Your task to perform on an android device: Open the Play Movies app and select the watchlist tab. Image 0: 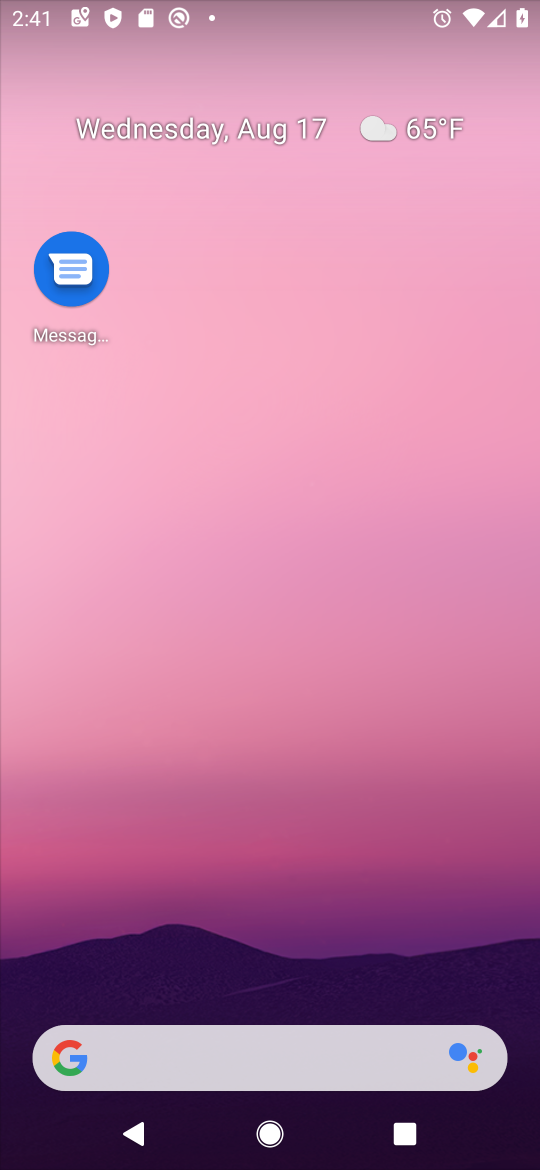
Step 0: drag from (254, 716) to (250, 123)
Your task to perform on an android device: Open the Play Movies app and select the watchlist tab. Image 1: 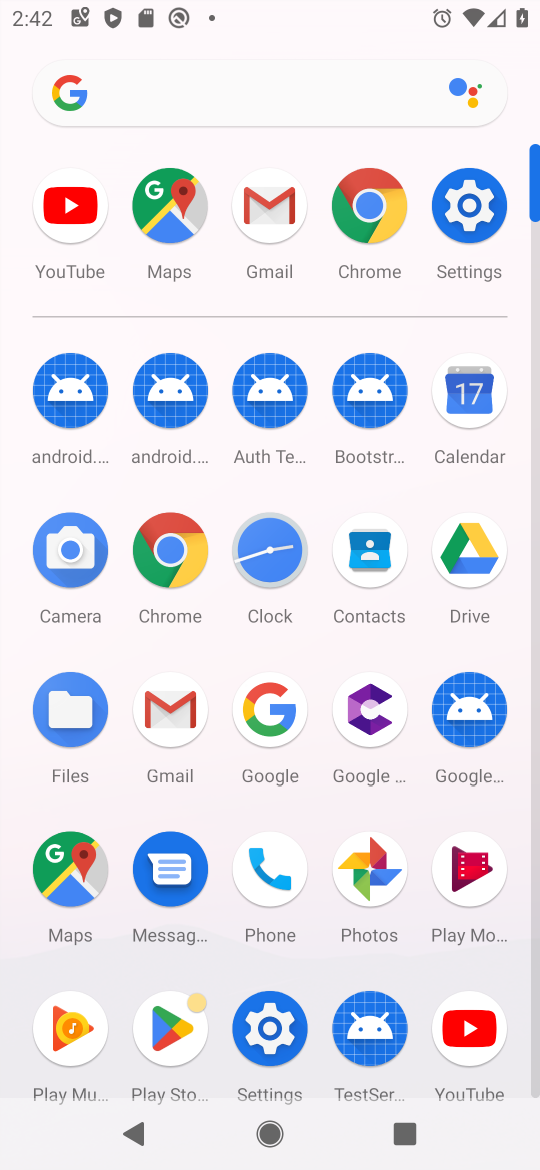
Step 1: click (441, 861)
Your task to perform on an android device: Open the Play Movies app and select the watchlist tab. Image 2: 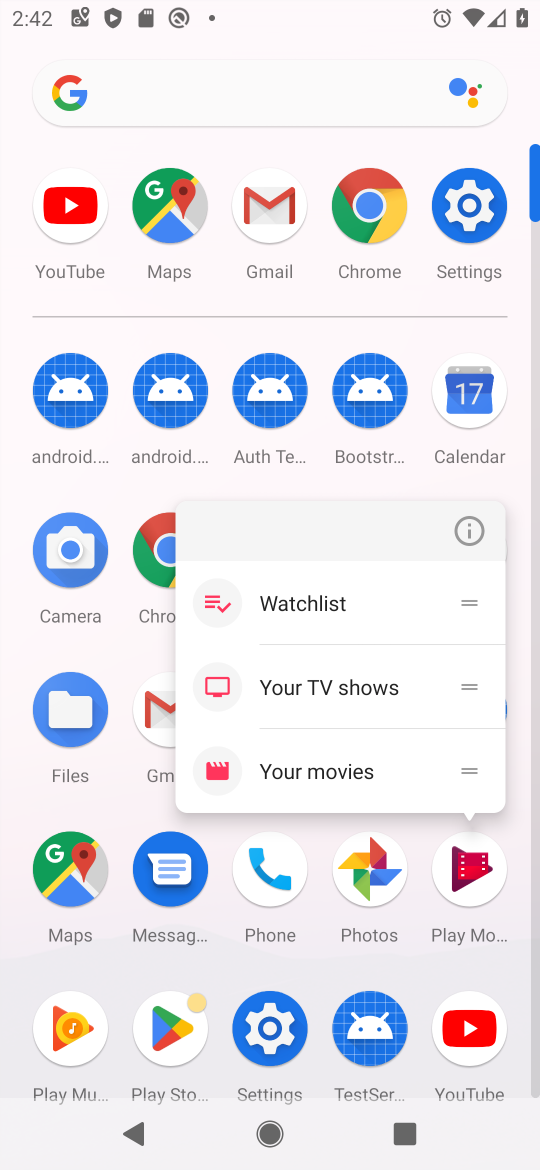
Step 2: click (460, 877)
Your task to perform on an android device: Open the Play Movies app and select the watchlist tab. Image 3: 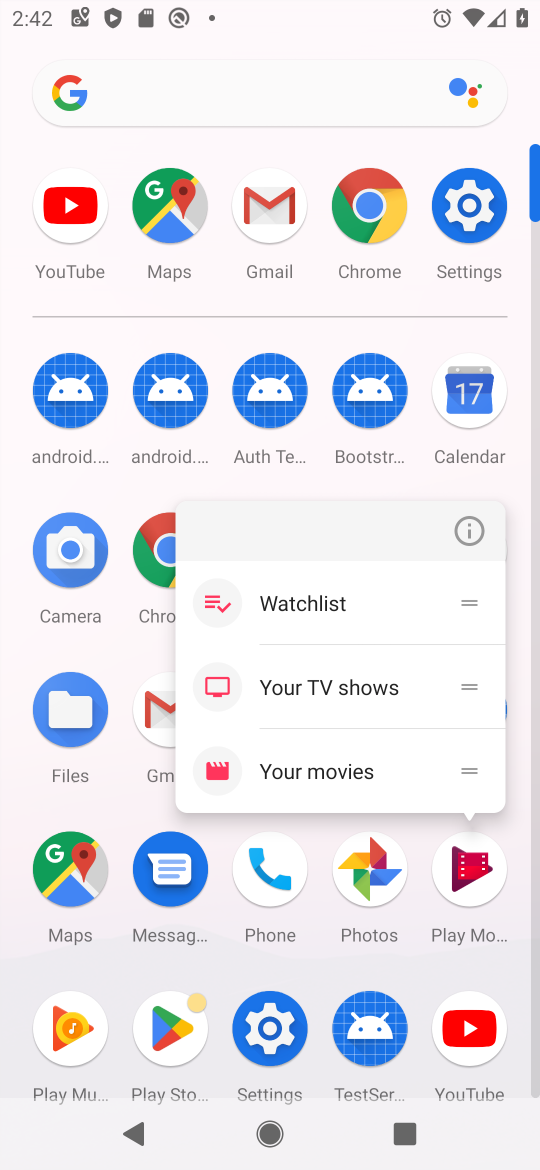
Step 3: click (476, 883)
Your task to perform on an android device: Open the Play Movies app and select the watchlist tab. Image 4: 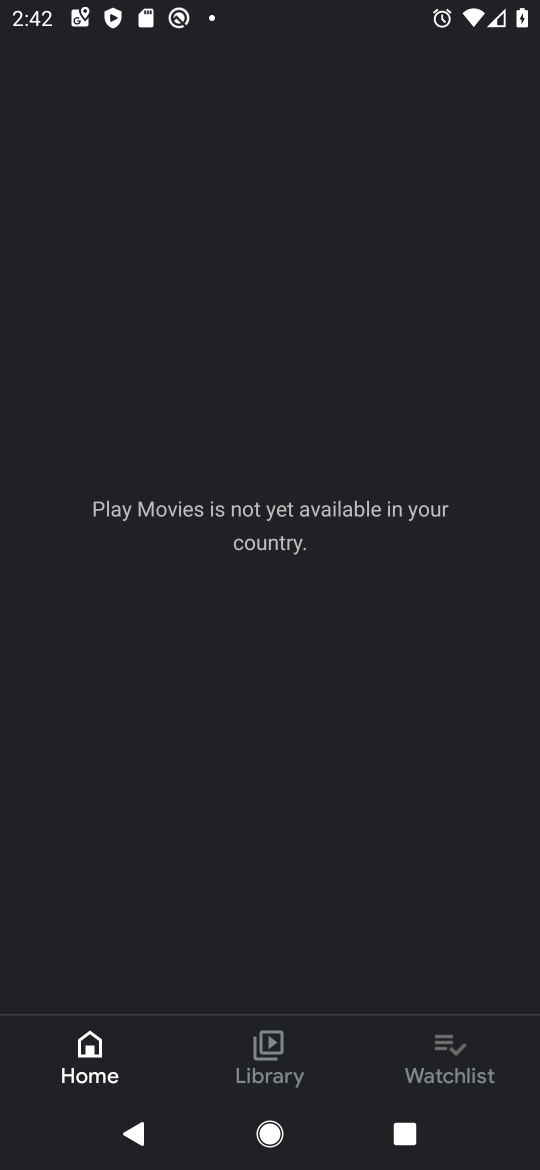
Step 4: click (450, 1059)
Your task to perform on an android device: Open the Play Movies app and select the watchlist tab. Image 5: 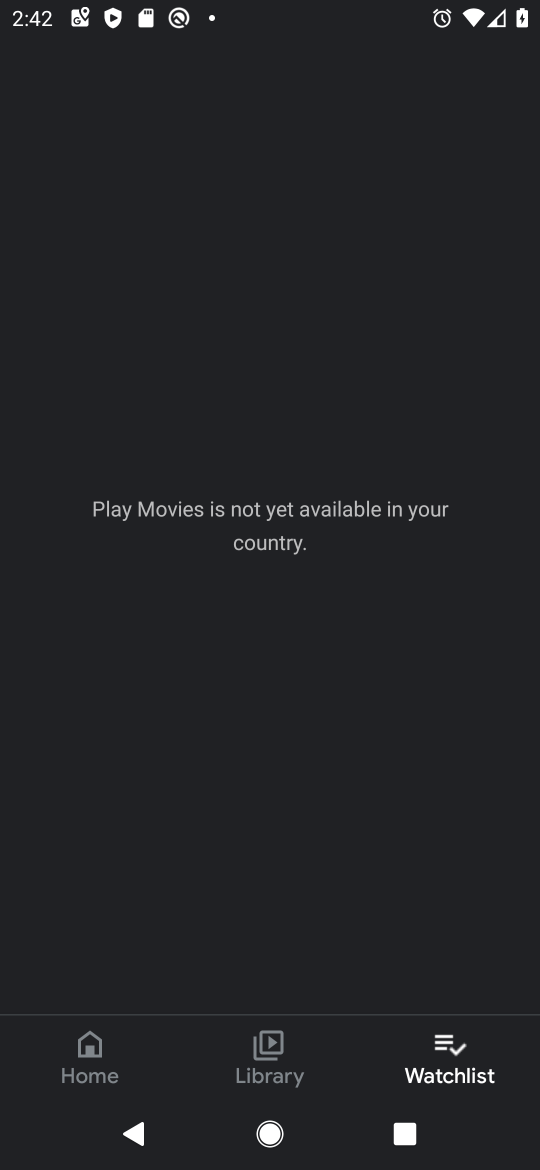
Step 5: task complete